Your task to perform on an android device: Open ESPN.com Image 0: 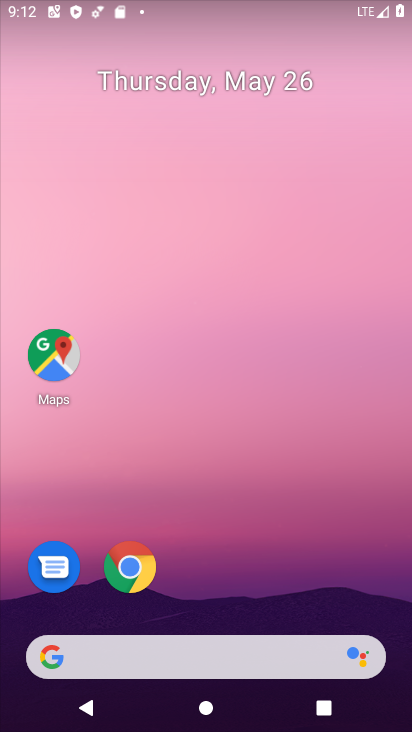
Step 0: click (269, 655)
Your task to perform on an android device: Open ESPN.com Image 1: 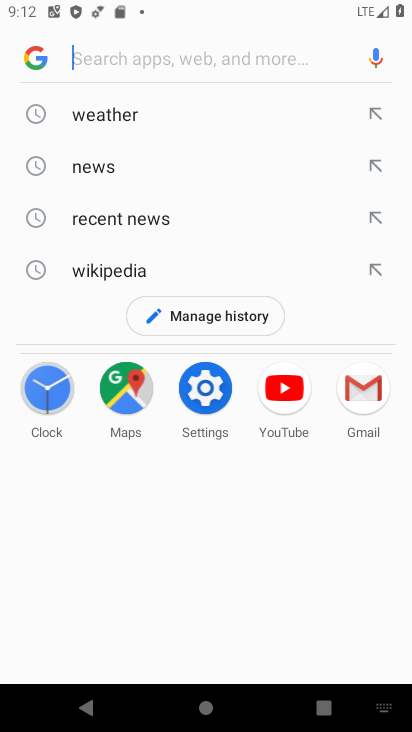
Step 1: type "espn.com"
Your task to perform on an android device: Open ESPN.com Image 2: 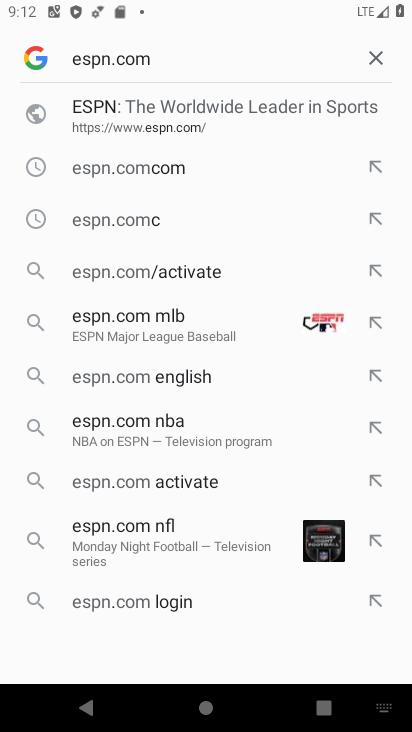
Step 2: click (275, 111)
Your task to perform on an android device: Open ESPN.com Image 3: 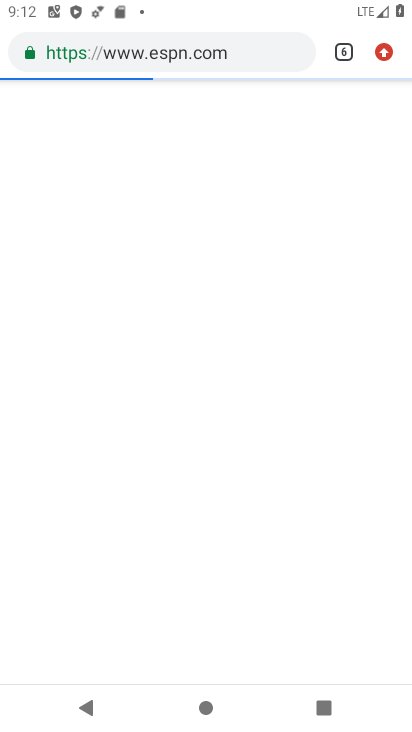
Step 3: task complete